Your task to perform on an android device: turn on sleep mode Image 0: 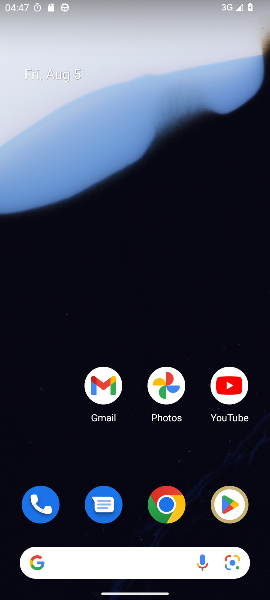
Step 0: drag from (34, 589) to (149, 148)
Your task to perform on an android device: turn on sleep mode Image 1: 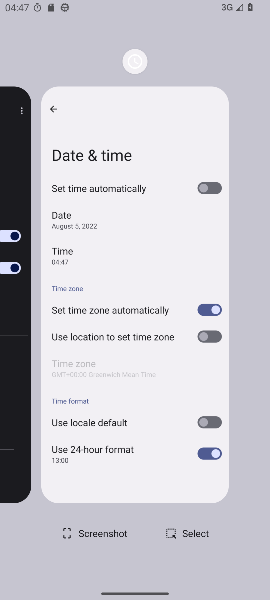
Step 1: task complete